Your task to perform on an android device: uninstall "eBay: The shopping marketplace" Image 0: 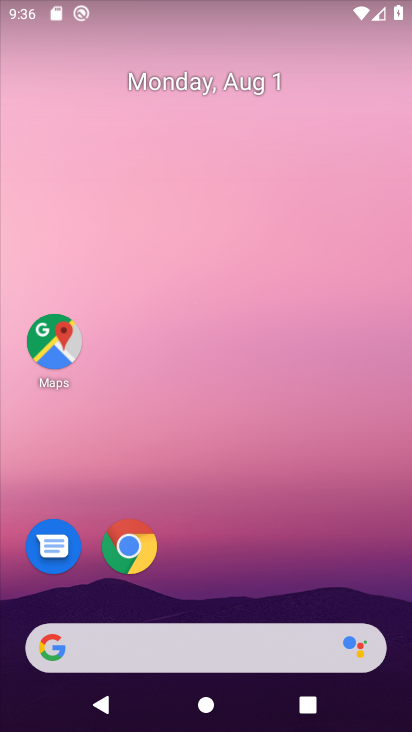
Step 0: press home button
Your task to perform on an android device: uninstall "eBay: The shopping marketplace" Image 1: 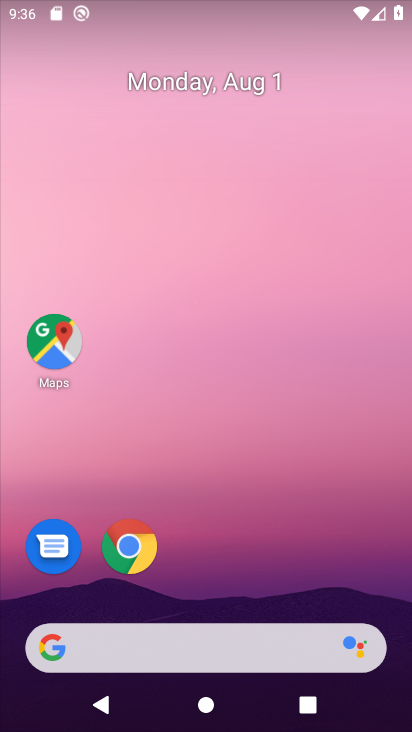
Step 1: drag from (205, 605) to (233, 13)
Your task to perform on an android device: uninstall "eBay: The shopping marketplace" Image 2: 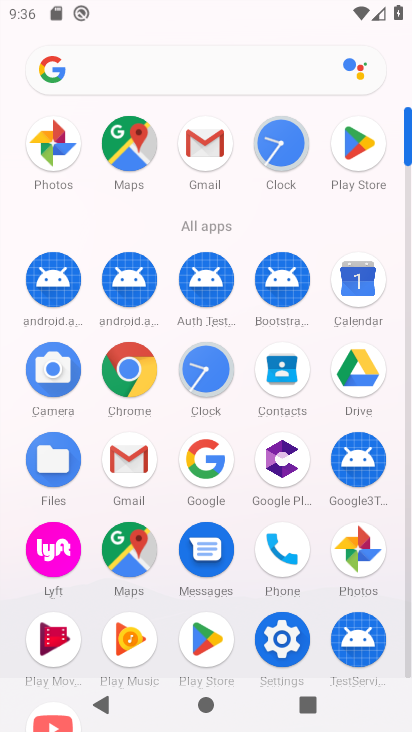
Step 2: click (350, 137)
Your task to perform on an android device: uninstall "eBay: The shopping marketplace" Image 3: 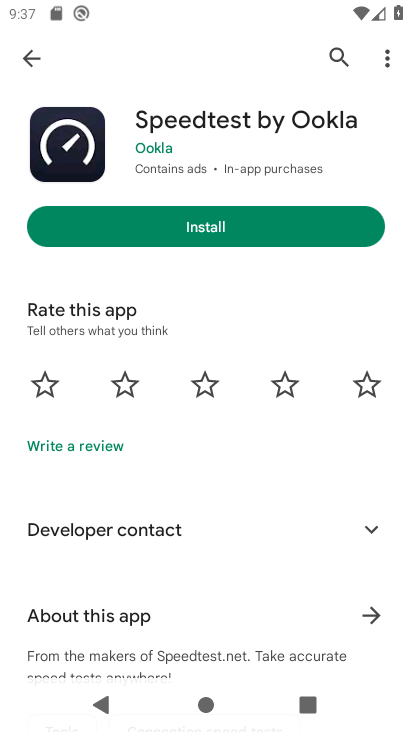
Step 3: click (337, 54)
Your task to perform on an android device: uninstall "eBay: The shopping marketplace" Image 4: 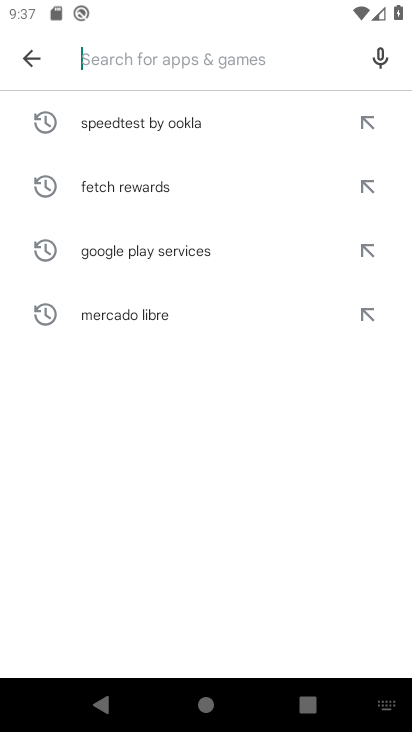
Step 4: type "eBay: The shopping marketplace"
Your task to perform on an android device: uninstall "eBay: The shopping marketplace" Image 5: 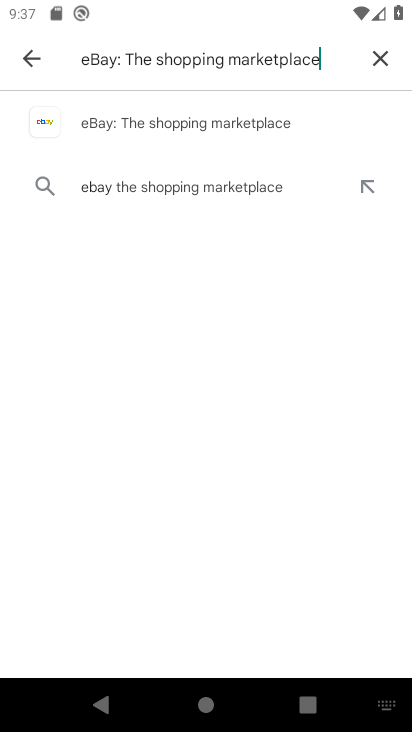
Step 5: click (186, 117)
Your task to perform on an android device: uninstall "eBay: The shopping marketplace" Image 6: 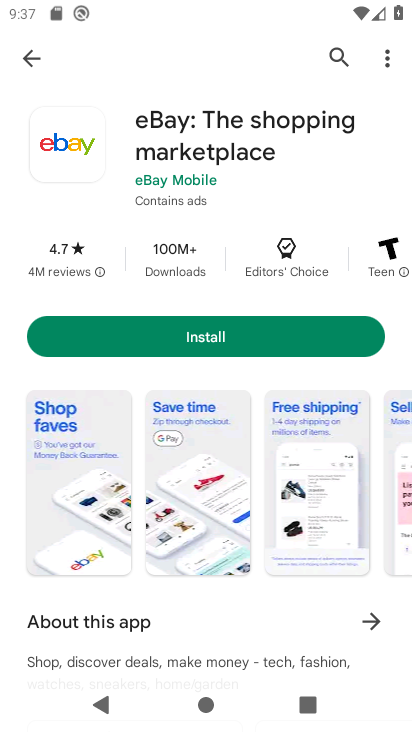
Step 6: task complete